Your task to perform on an android device: check data usage Image 0: 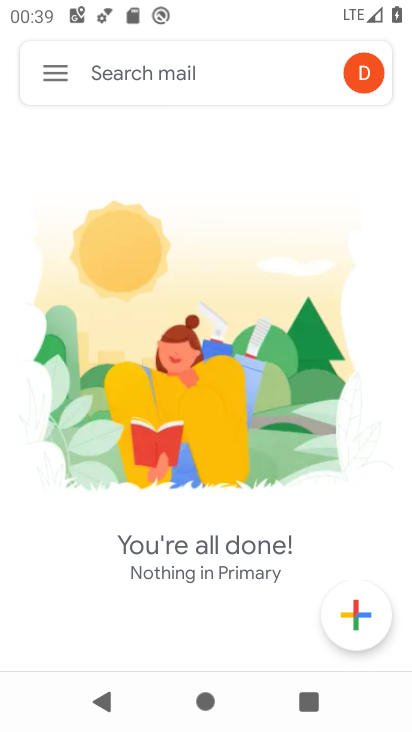
Step 0: press home button
Your task to perform on an android device: check data usage Image 1: 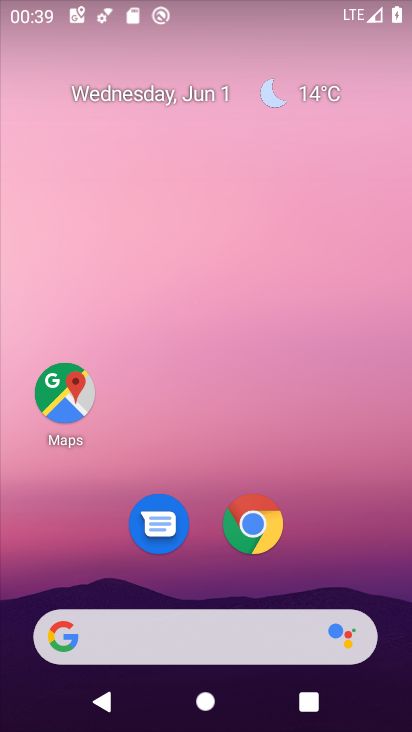
Step 1: drag from (310, 506) to (298, 2)
Your task to perform on an android device: check data usage Image 2: 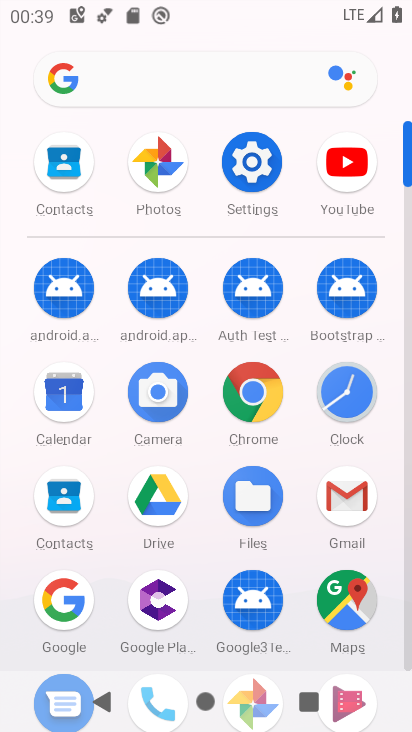
Step 2: click (245, 155)
Your task to perform on an android device: check data usage Image 3: 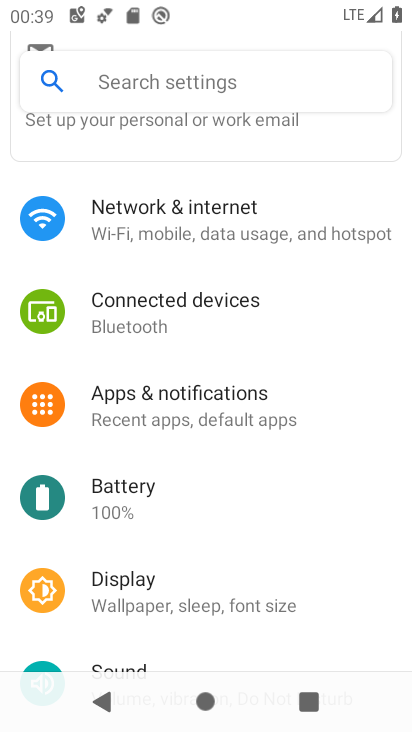
Step 3: click (232, 215)
Your task to perform on an android device: check data usage Image 4: 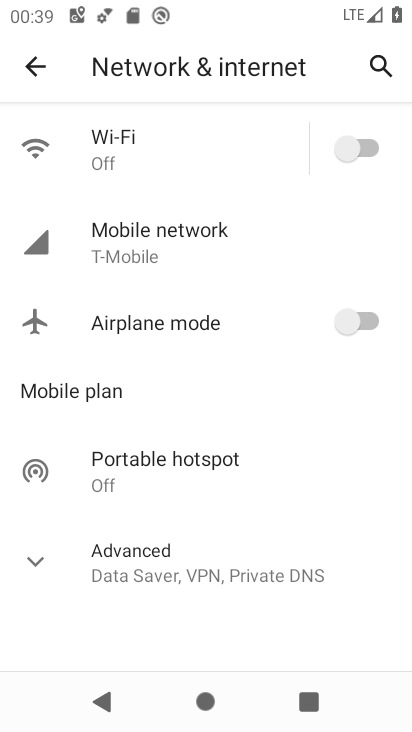
Step 4: click (229, 226)
Your task to perform on an android device: check data usage Image 5: 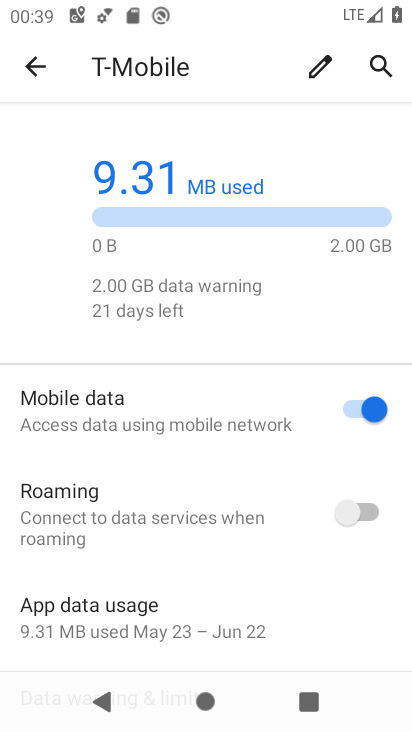
Step 5: task complete